Your task to perform on an android device: Search for pizza restaurants on Maps Image 0: 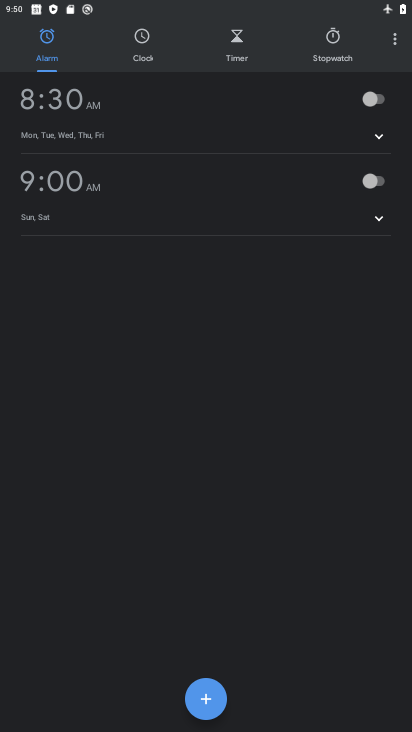
Step 0: press home button
Your task to perform on an android device: Search for pizza restaurants on Maps Image 1: 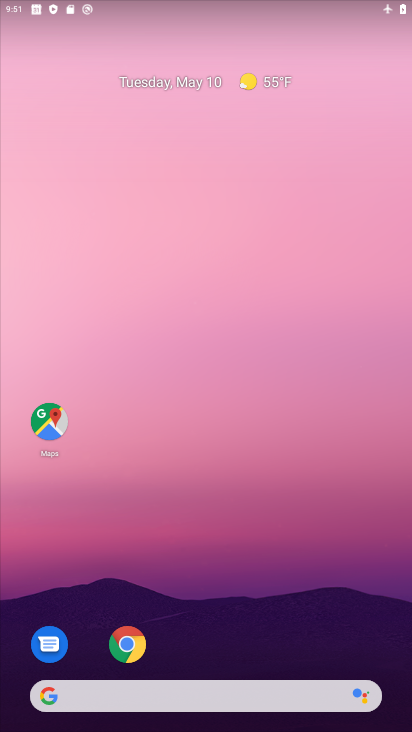
Step 1: click (51, 445)
Your task to perform on an android device: Search for pizza restaurants on Maps Image 2: 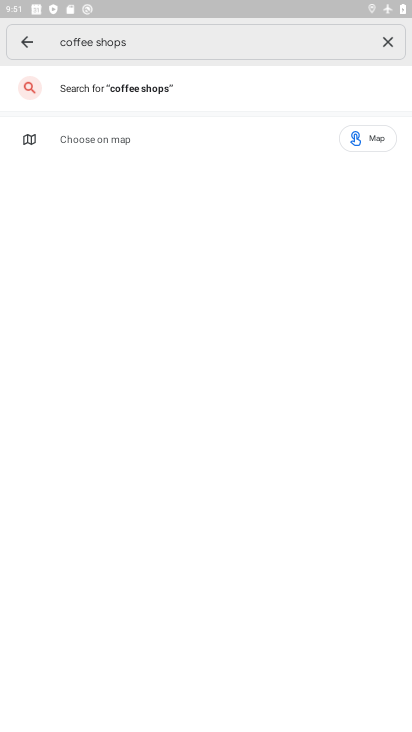
Step 2: click (385, 35)
Your task to perform on an android device: Search for pizza restaurants on Maps Image 3: 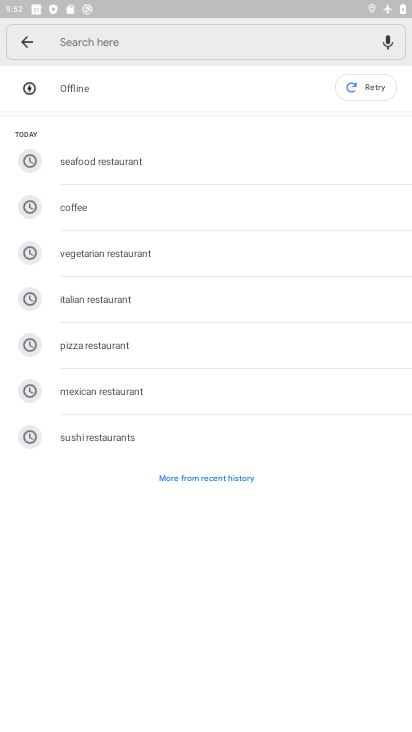
Step 3: task complete